Your task to perform on an android device: When is my next appointment? Image 0: 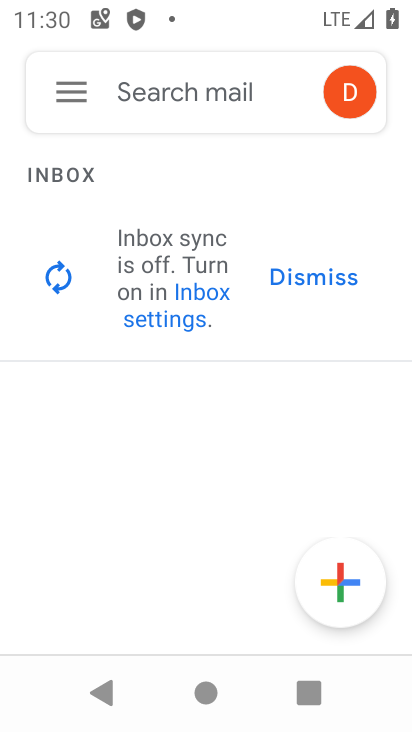
Step 0: press back button
Your task to perform on an android device: When is my next appointment? Image 1: 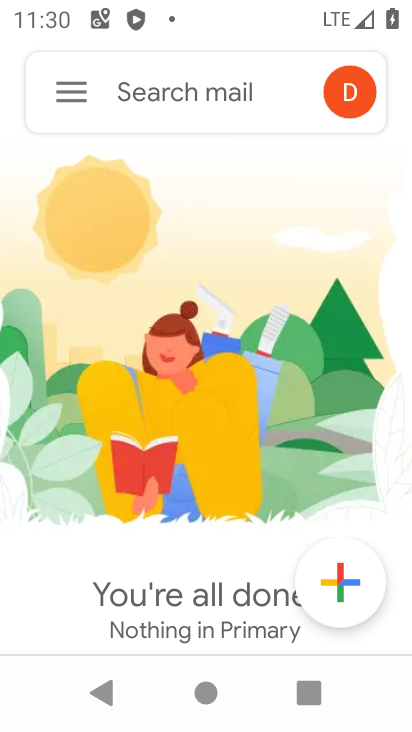
Step 1: press back button
Your task to perform on an android device: When is my next appointment? Image 2: 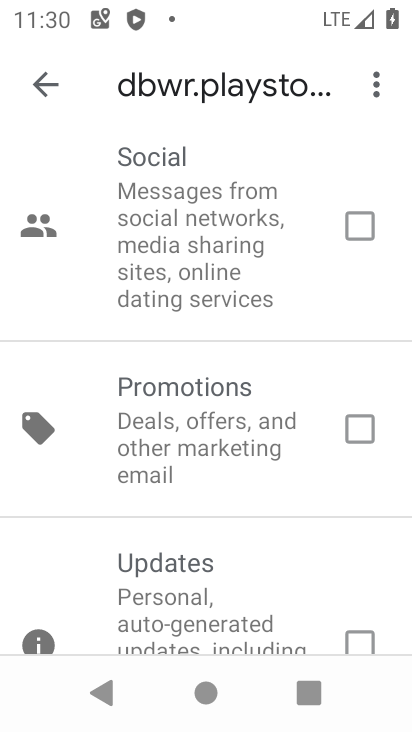
Step 2: drag from (267, 636) to (291, 294)
Your task to perform on an android device: When is my next appointment? Image 3: 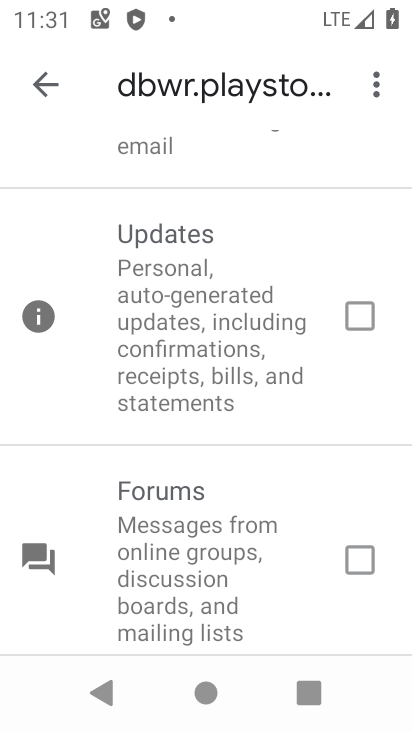
Step 3: press back button
Your task to perform on an android device: When is my next appointment? Image 4: 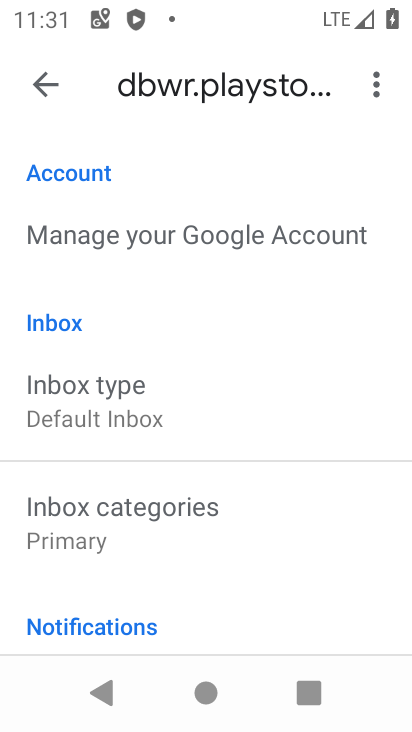
Step 4: press back button
Your task to perform on an android device: When is my next appointment? Image 5: 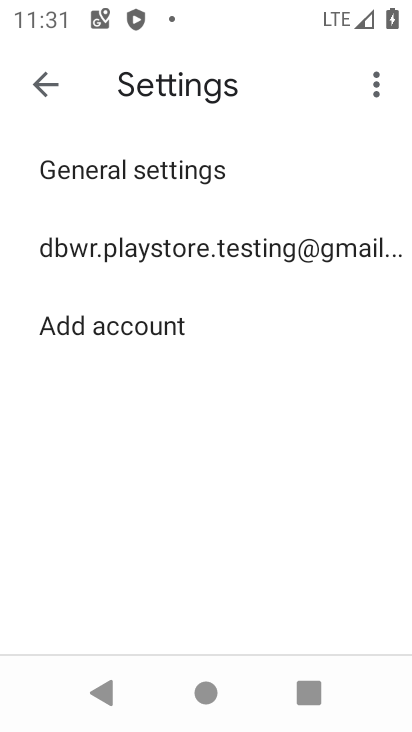
Step 5: press back button
Your task to perform on an android device: When is my next appointment? Image 6: 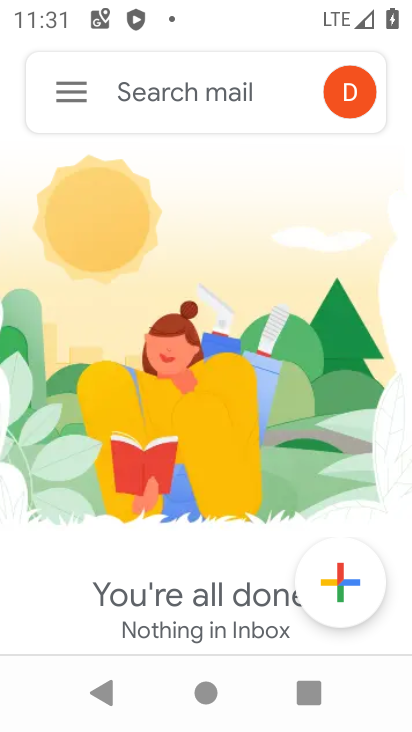
Step 6: press home button
Your task to perform on an android device: When is my next appointment? Image 7: 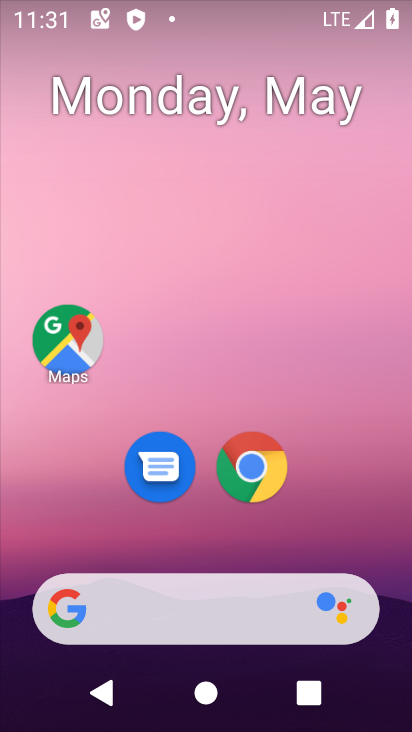
Step 7: drag from (386, 665) to (371, 115)
Your task to perform on an android device: When is my next appointment? Image 8: 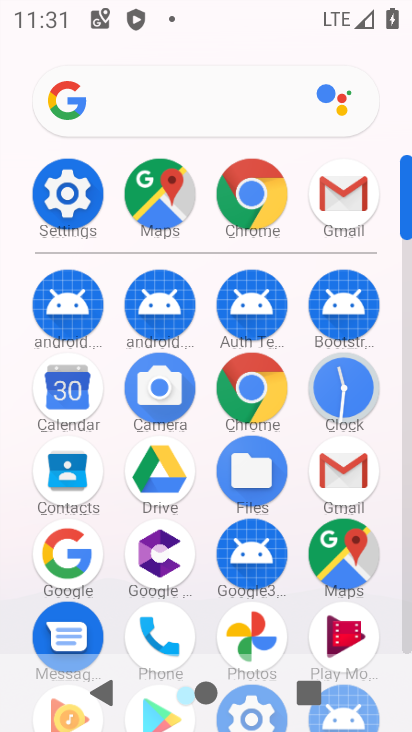
Step 8: click (69, 399)
Your task to perform on an android device: When is my next appointment? Image 9: 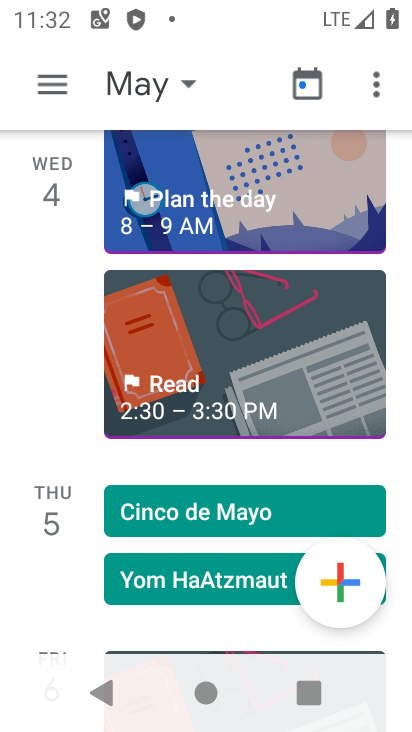
Step 9: click (51, 94)
Your task to perform on an android device: When is my next appointment? Image 10: 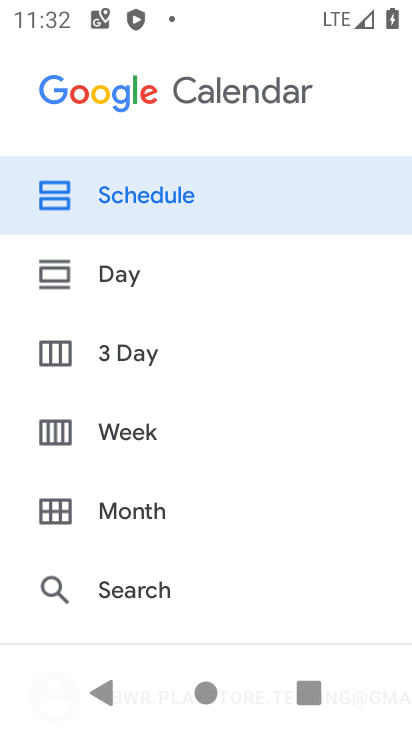
Step 10: click (140, 185)
Your task to perform on an android device: When is my next appointment? Image 11: 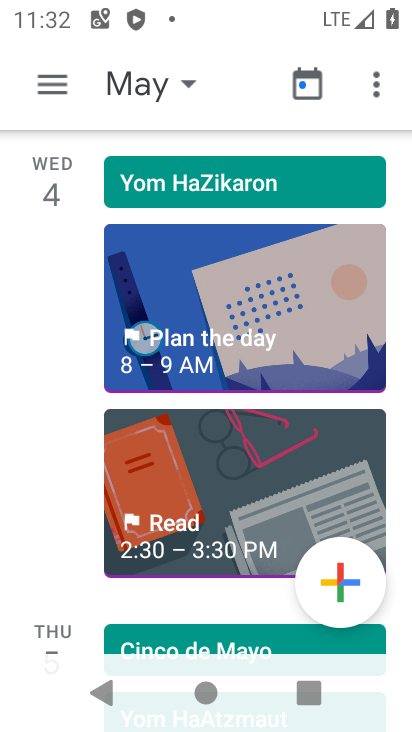
Step 11: click (191, 84)
Your task to perform on an android device: When is my next appointment? Image 12: 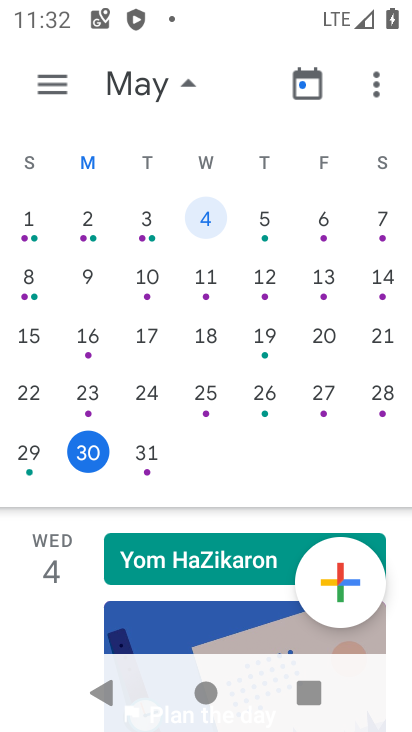
Step 12: click (152, 449)
Your task to perform on an android device: When is my next appointment? Image 13: 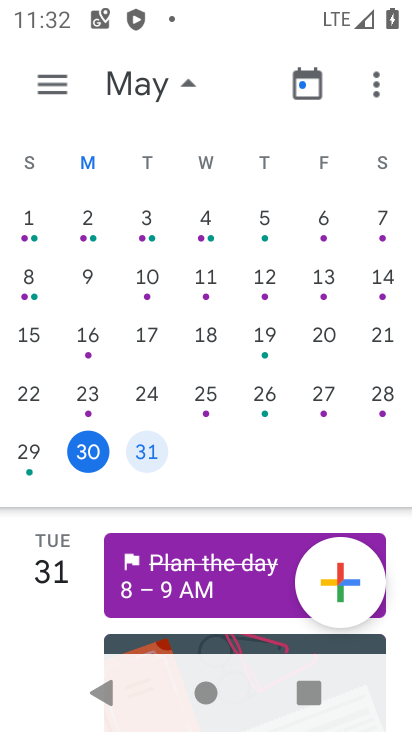
Step 13: task complete